Your task to perform on an android device: turn off priority inbox in the gmail app Image 0: 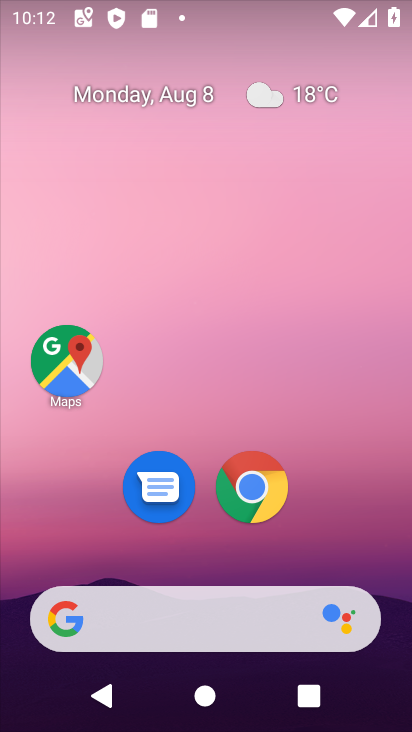
Step 0: drag from (215, 366) to (212, 20)
Your task to perform on an android device: turn off priority inbox in the gmail app Image 1: 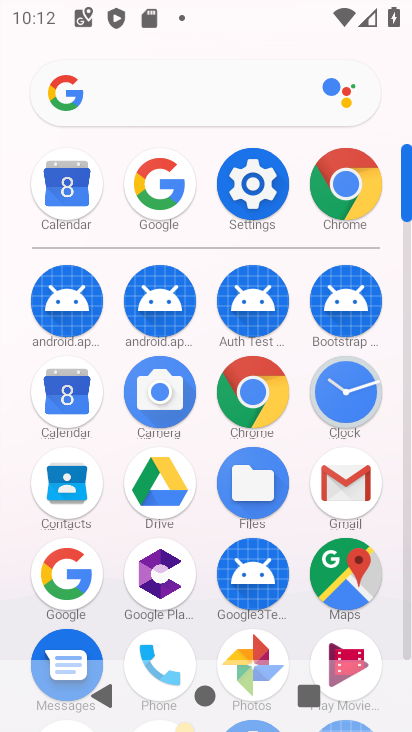
Step 1: click (333, 473)
Your task to perform on an android device: turn off priority inbox in the gmail app Image 2: 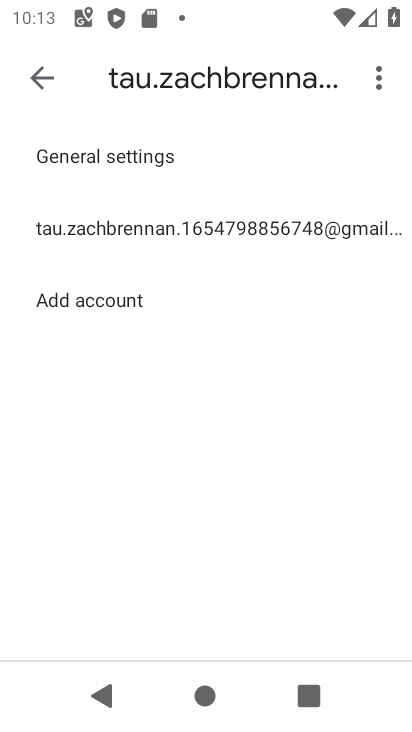
Step 2: click (147, 225)
Your task to perform on an android device: turn off priority inbox in the gmail app Image 3: 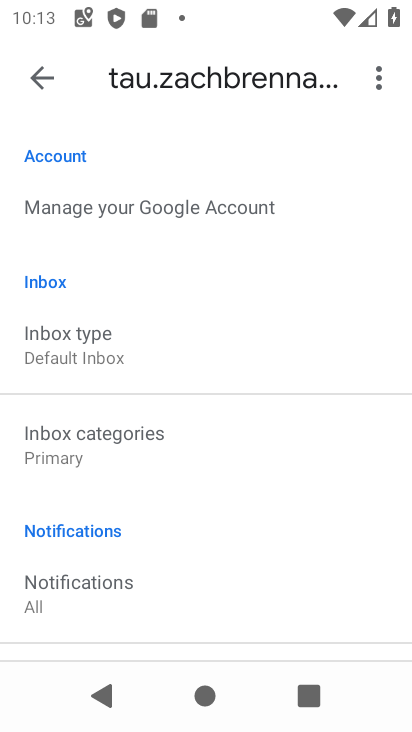
Step 3: task complete